Your task to perform on an android device: Open Google Maps Image 0: 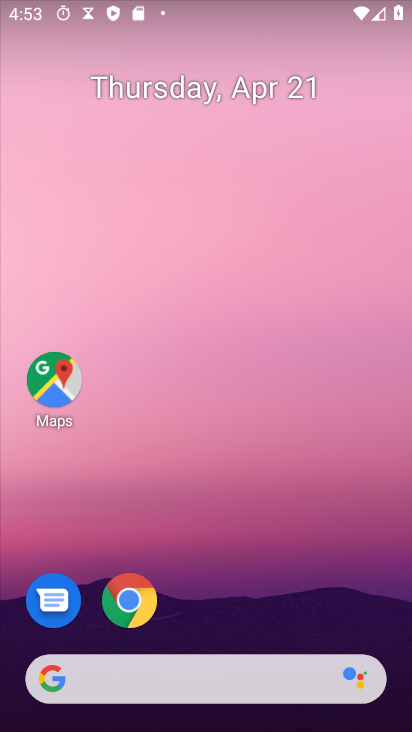
Step 0: click (217, 610)
Your task to perform on an android device: Open Google Maps Image 1: 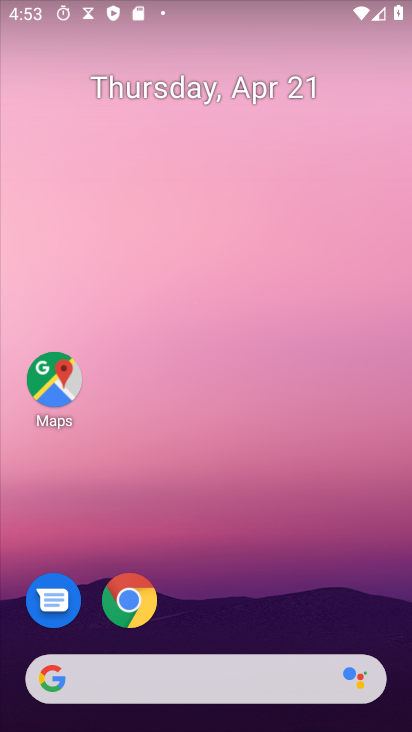
Step 1: click (54, 378)
Your task to perform on an android device: Open Google Maps Image 2: 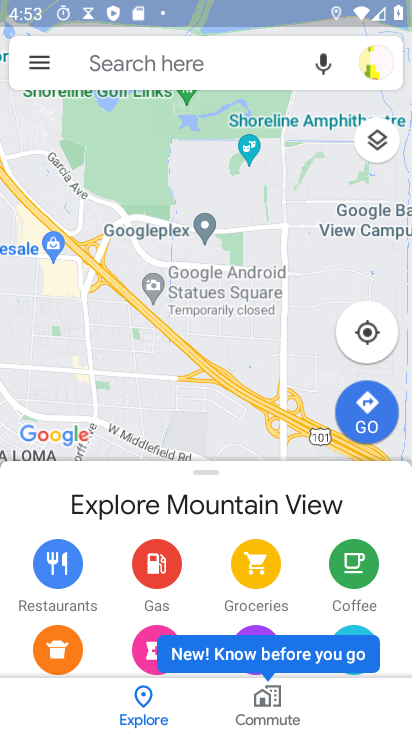
Step 2: task complete